Your task to perform on an android device: toggle location history Image 0: 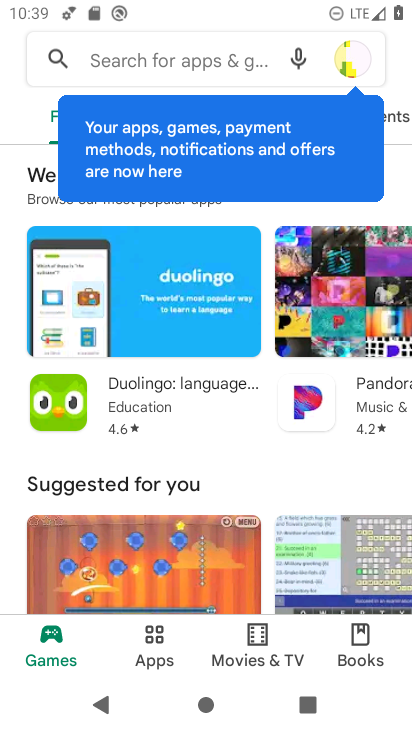
Step 0: press home button
Your task to perform on an android device: toggle location history Image 1: 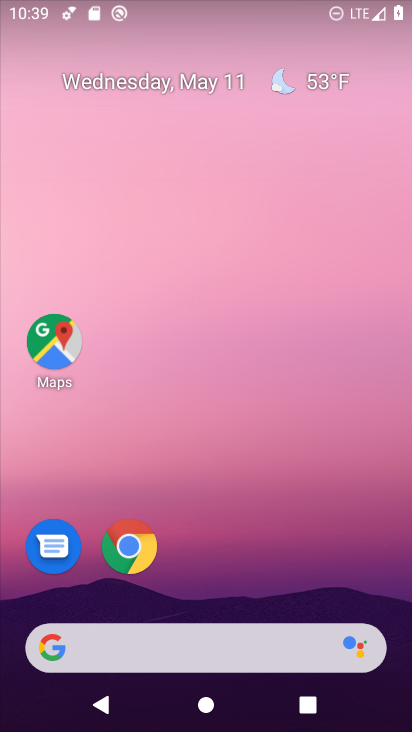
Step 1: drag from (398, 622) to (215, 30)
Your task to perform on an android device: toggle location history Image 2: 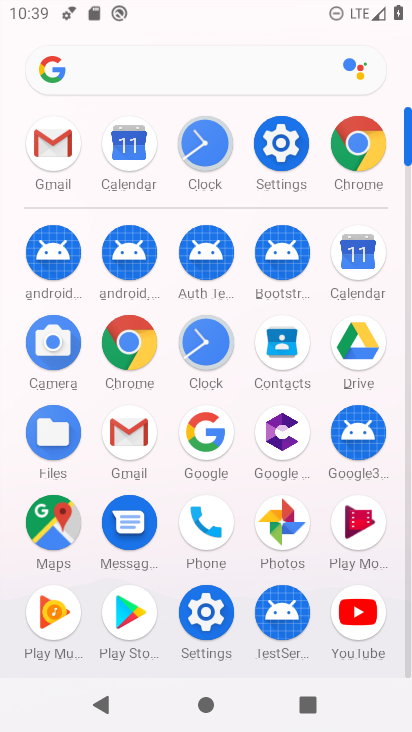
Step 2: click (221, 619)
Your task to perform on an android device: toggle location history Image 3: 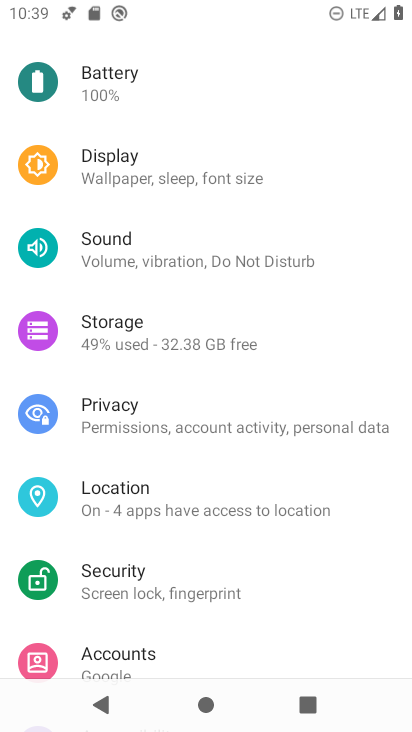
Step 3: click (115, 492)
Your task to perform on an android device: toggle location history Image 4: 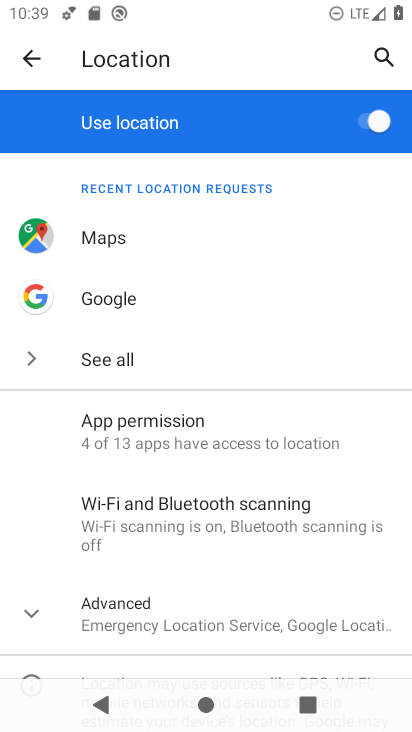
Step 4: click (44, 619)
Your task to perform on an android device: toggle location history Image 5: 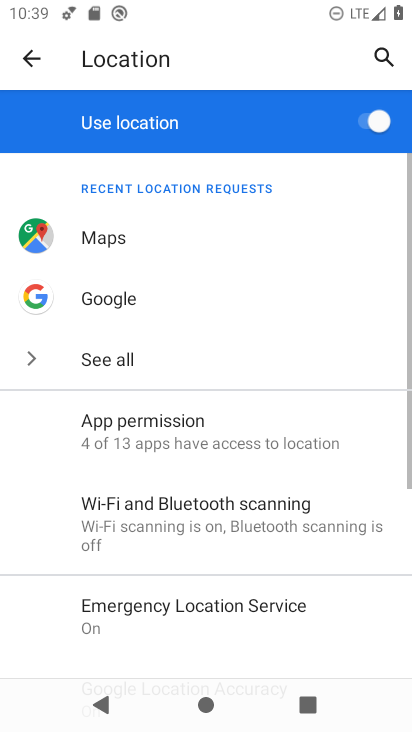
Step 5: drag from (44, 619) to (123, 335)
Your task to perform on an android device: toggle location history Image 6: 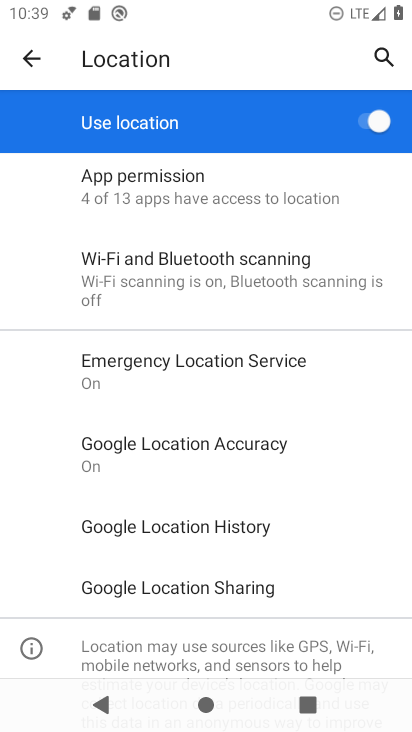
Step 6: click (218, 528)
Your task to perform on an android device: toggle location history Image 7: 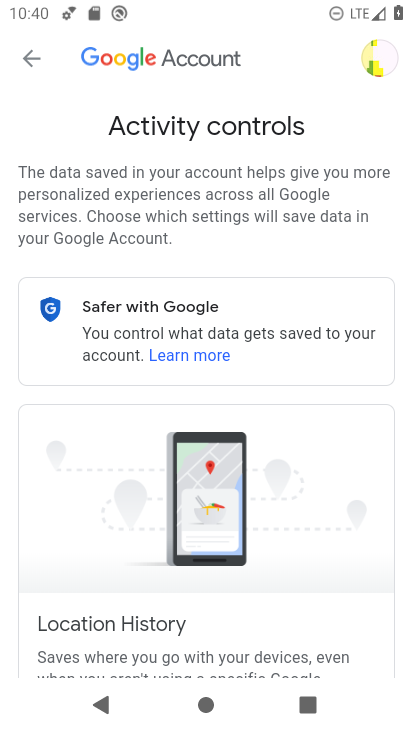
Step 7: drag from (251, 629) to (253, 106)
Your task to perform on an android device: toggle location history Image 8: 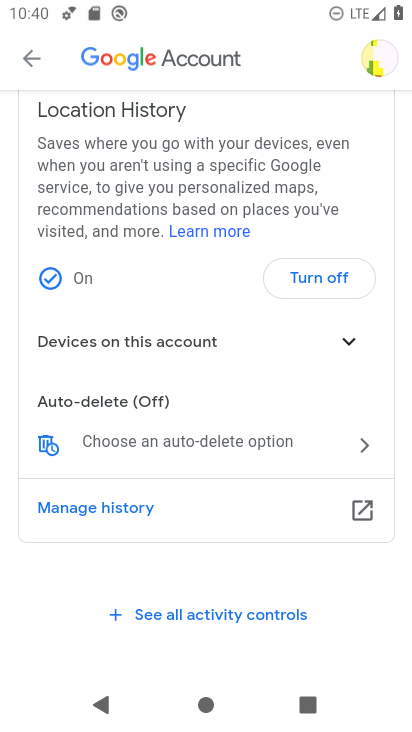
Step 8: click (308, 282)
Your task to perform on an android device: toggle location history Image 9: 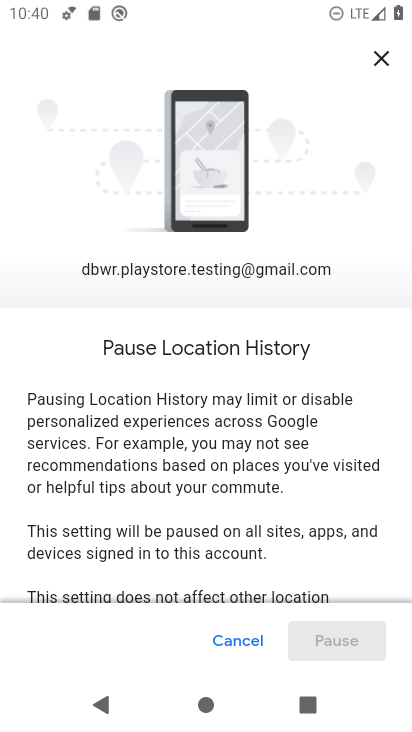
Step 9: task complete